Your task to perform on an android device: add a contact in the contacts app Image 0: 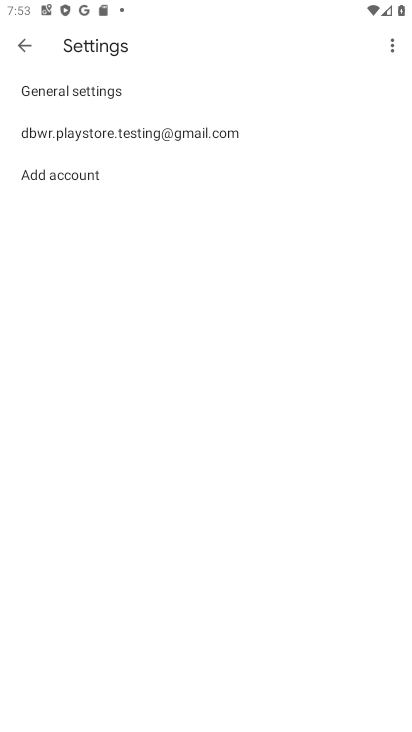
Step 0: press home button
Your task to perform on an android device: add a contact in the contacts app Image 1: 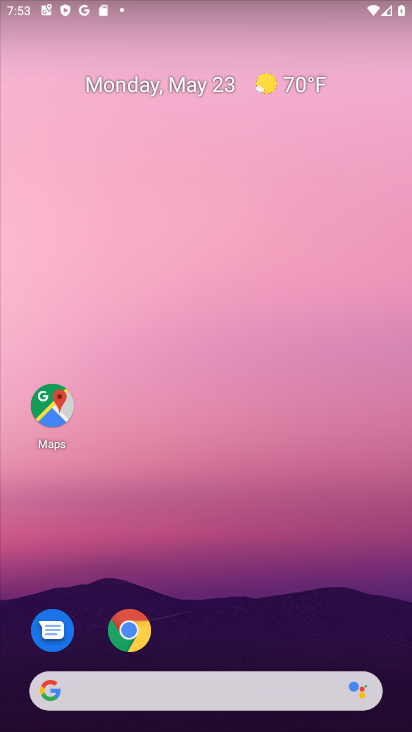
Step 1: drag from (246, 611) to (319, 114)
Your task to perform on an android device: add a contact in the contacts app Image 2: 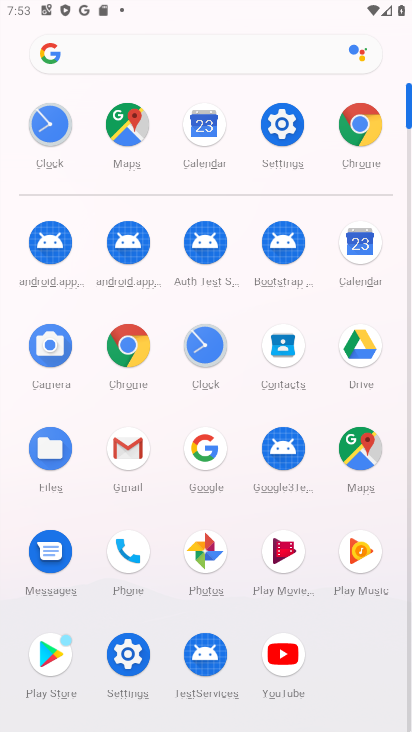
Step 2: click (286, 350)
Your task to perform on an android device: add a contact in the contacts app Image 3: 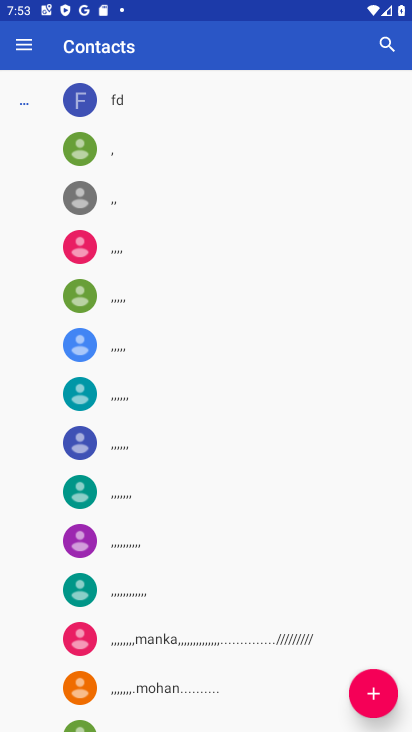
Step 3: click (374, 686)
Your task to perform on an android device: add a contact in the contacts app Image 4: 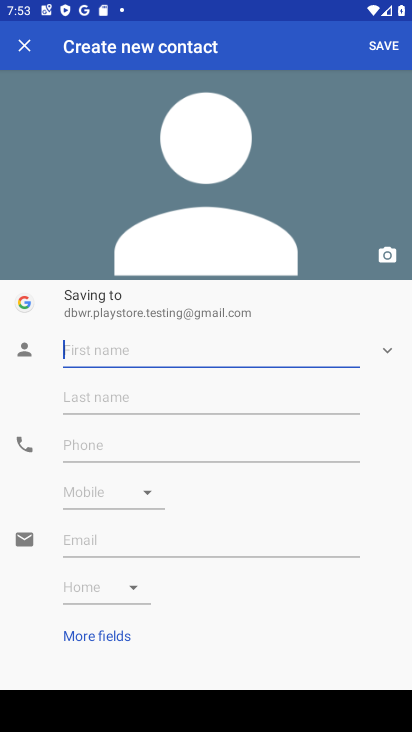
Step 4: click (216, 355)
Your task to perform on an android device: add a contact in the contacts app Image 5: 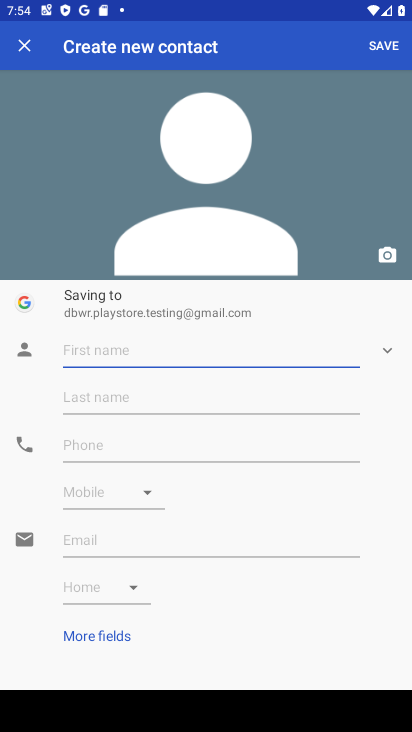
Step 5: type "chumaki"
Your task to perform on an android device: add a contact in the contacts app Image 6: 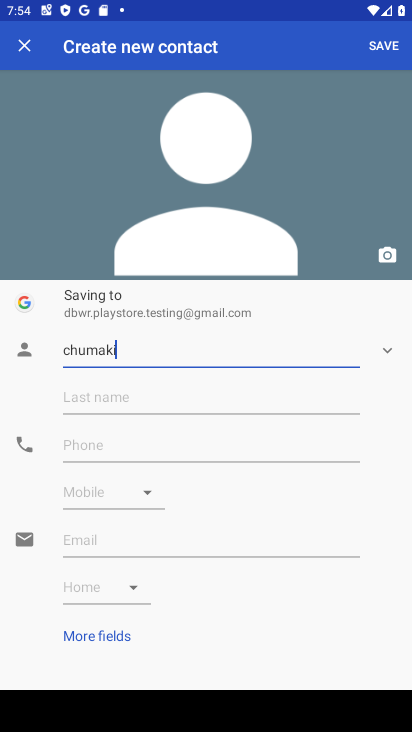
Step 6: click (396, 51)
Your task to perform on an android device: add a contact in the contacts app Image 7: 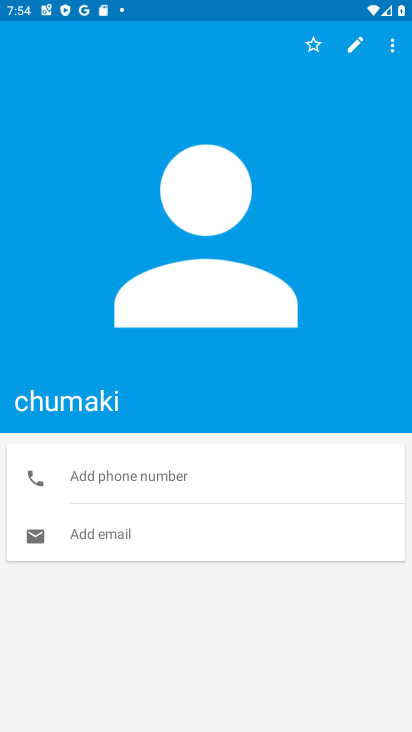
Step 7: task complete